Your task to perform on an android device: turn on airplane mode Image 0: 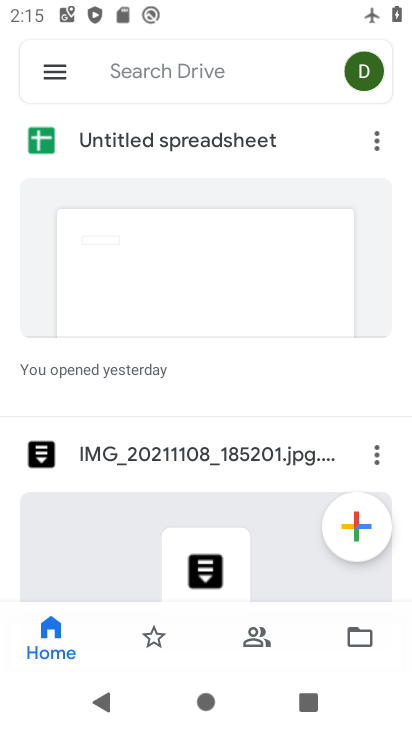
Step 0: press home button
Your task to perform on an android device: turn on airplane mode Image 1: 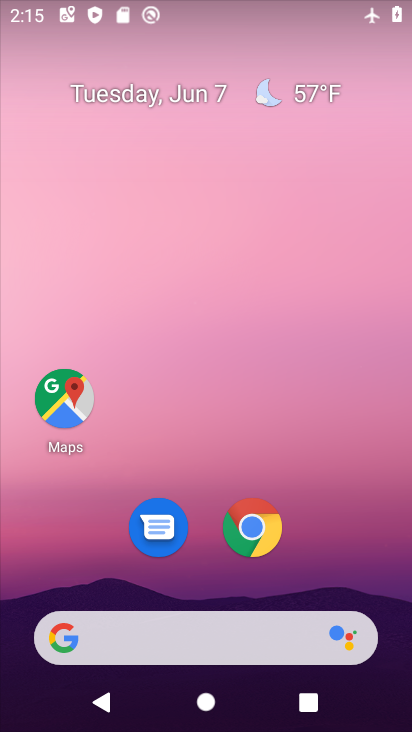
Step 1: drag from (378, 564) to (228, 188)
Your task to perform on an android device: turn on airplane mode Image 2: 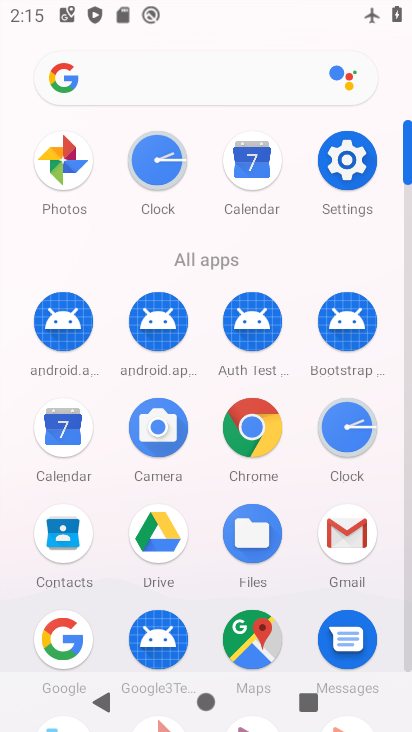
Step 2: click (352, 169)
Your task to perform on an android device: turn on airplane mode Image 3: 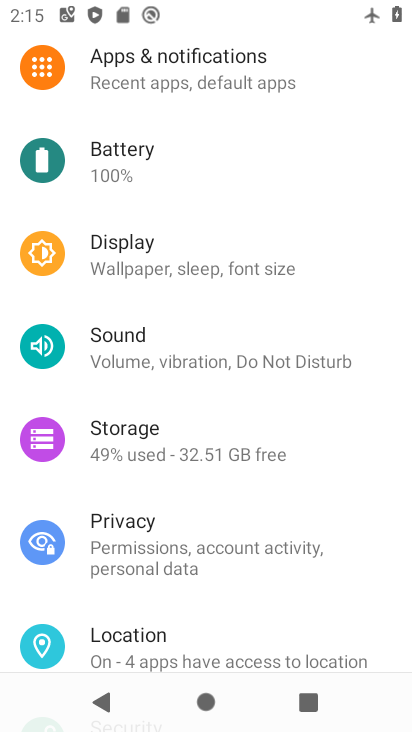
Step 3: drag from (262, 142) to (410, 425)
Your task to perform on an android device: turn on airplane mode Image 4: 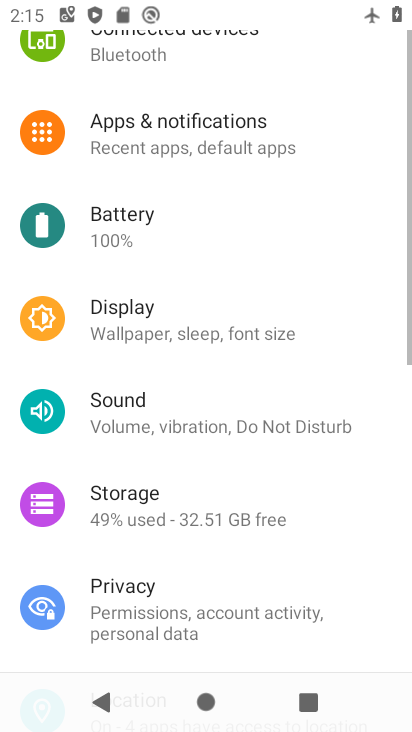
Step 4: click (254, 447)
Your task to perform on an android device: turn on airplane mode Image 5: 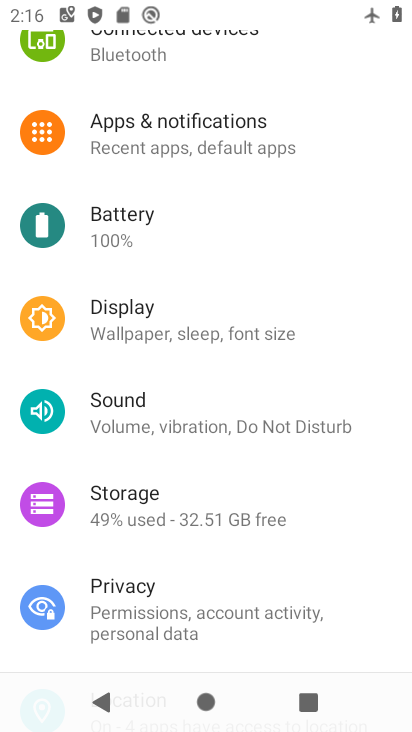
Step 5: drag from (211, 74) to (281, 418)
Your task to perform on an android device: turn on airplane mode Image 6: 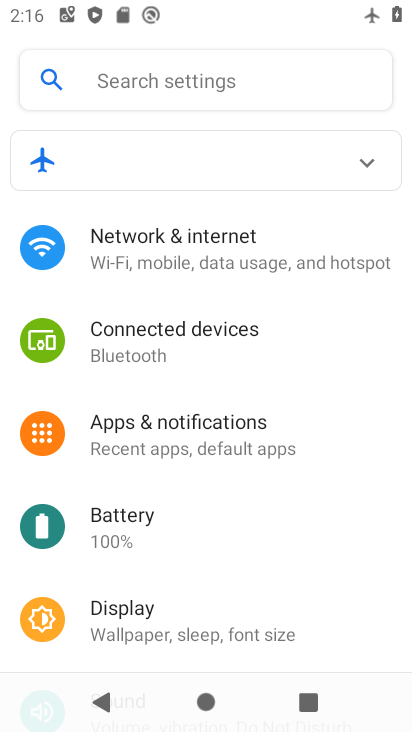
Step 6: click (284, 263)
Your task to perform on an android device: turn on airplane mode Image 7: 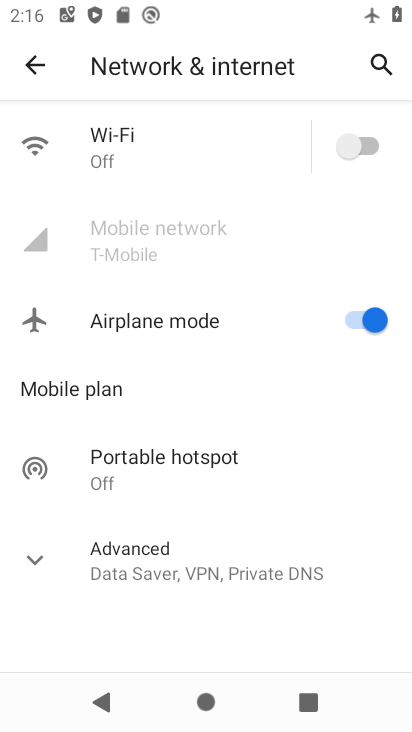
Step 7: task complete